Your task to perform on an android device: Check the weather Image 0: 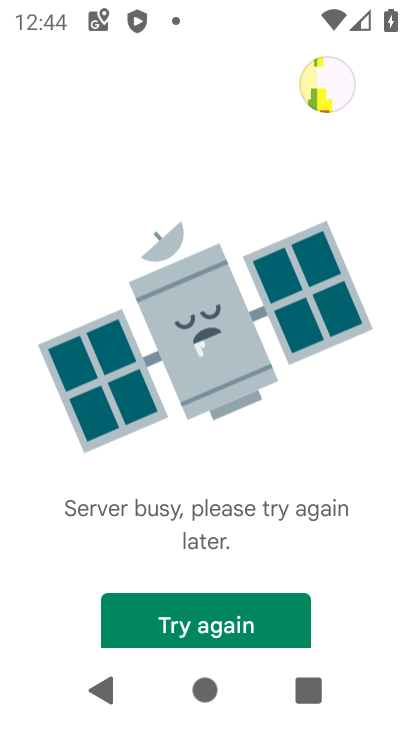
Step 0: press home button
Your task to perform on an android device: Check the weather Image 1: 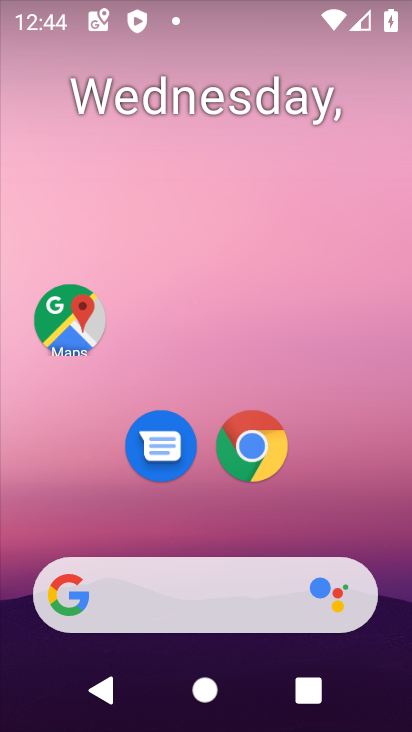
Step 1: drag from (182, 518) to (223, 159)
Your task to perform on an android device: Check the weather Image 2: 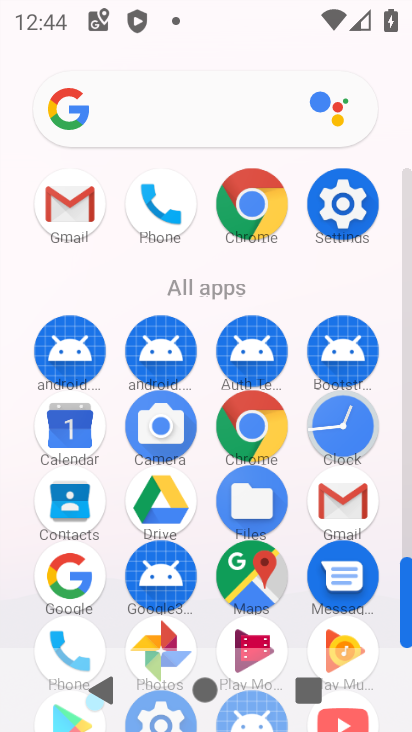
Step 2: drag from (198, 291) to (192, 119)
Your task to perform on an android device: Check the weather Image 3: 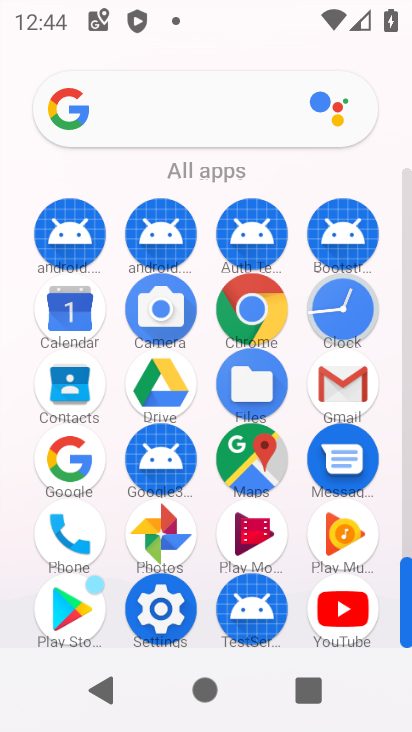
Step 3: click (68, 466)
Your task to perform on an android device: Check the weather Image 4: 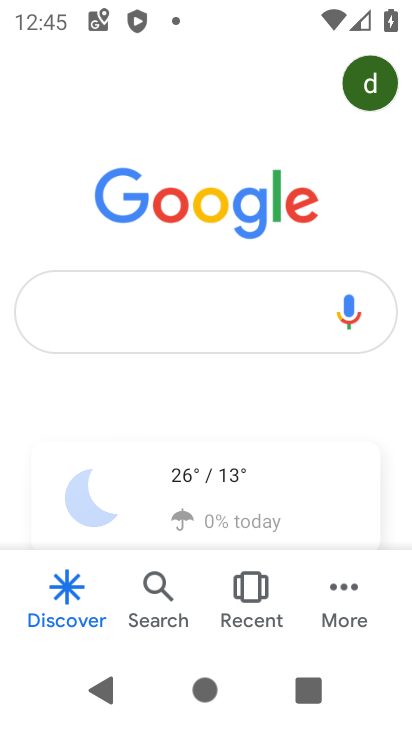
Step 4: click (250, 501)
Your task to perform on an android device: Check the weather Image 5: 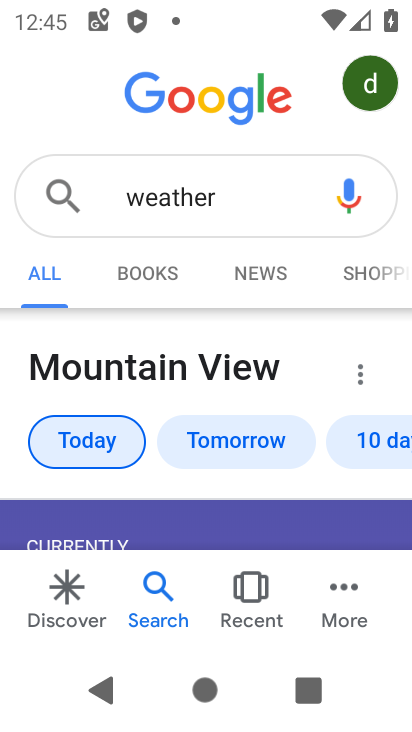
Step 5: task complete